Your task to perform on an android device: Go to Wikipedia Image 0: 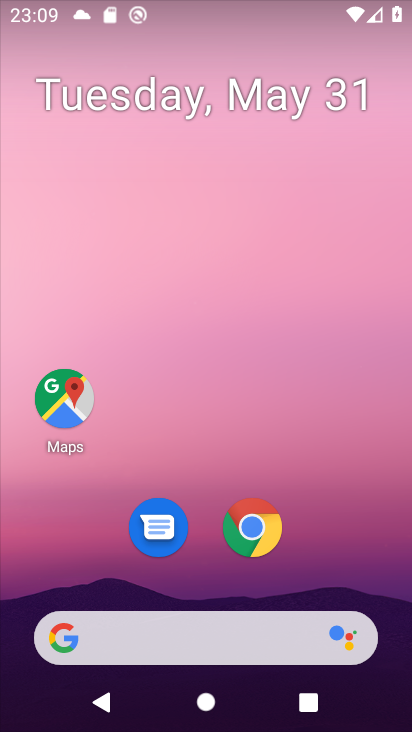
Step 0: click (251, 540)
Your task to perform on an android device: Go to Wikipedia Image 1: 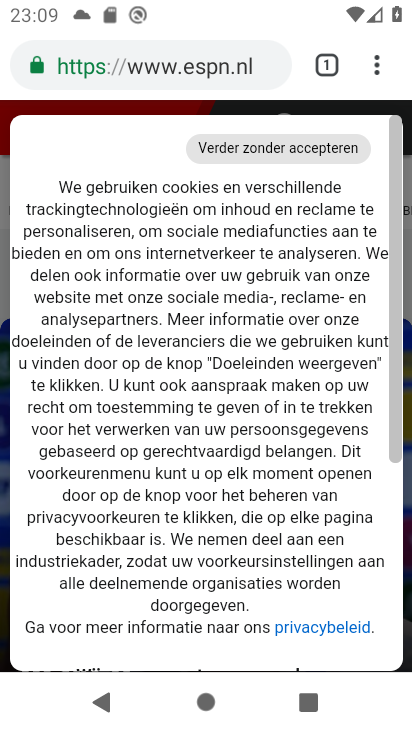
Step 1: click (335, 62)
Your task to perform on an android device: Go to Wikipedia Image 2: 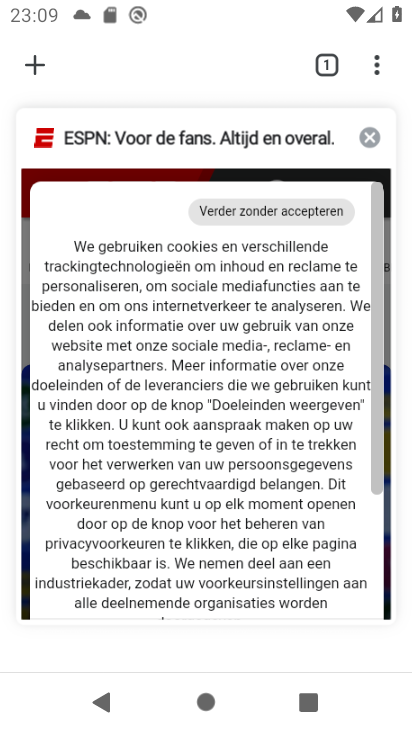
Step 2: click (31, 59)
Your task to perform on an android device: Go to Wikipedia Image 3: 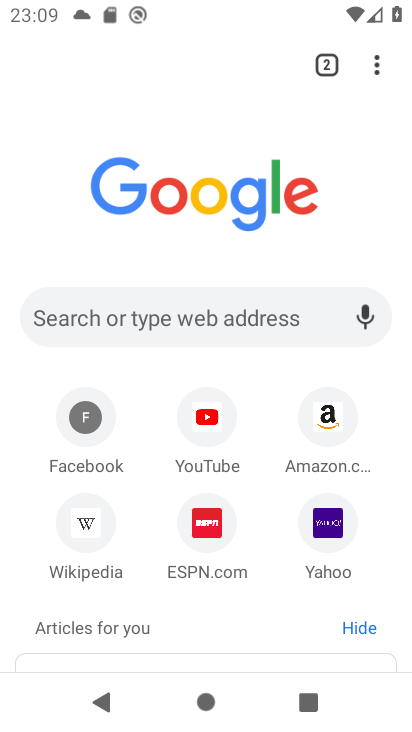
Step 3: click (79, 520)
Your task to perform on an android device: Go to Wikipedia Image 4: 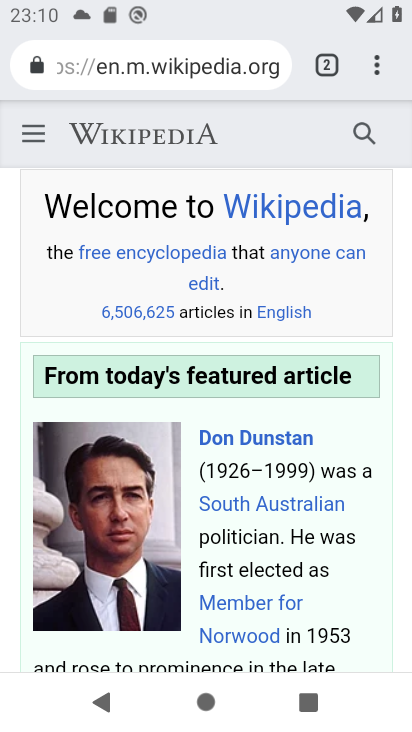
Step 4: task complete